Your task to perform on an android device: Go to internet settings Image 0: 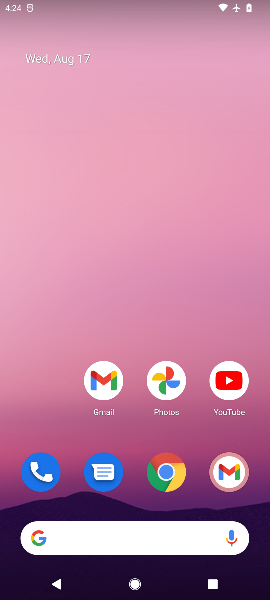
Step 0: drag from (130, 505) to (269, 400)
Your task to perform on an android device: Go to internet settings Image 1: 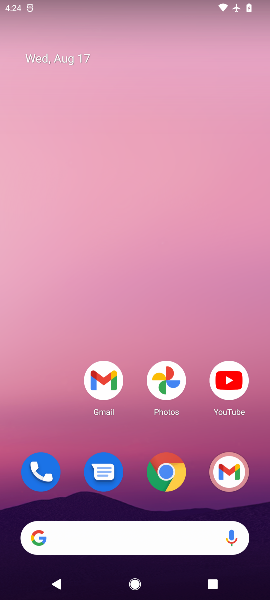
Step 1: click (172, 458)
Your task to perform on an android device: Go to internet settings Image 2: 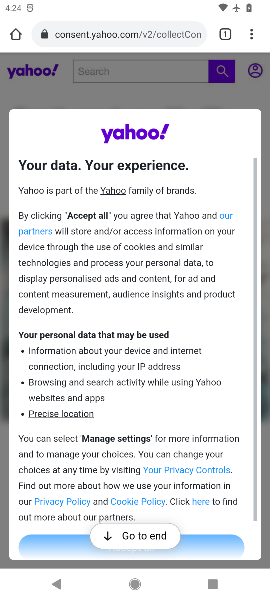
Step 2: press home button
Your task to perform on an android device: Go to internet settings Image 3: 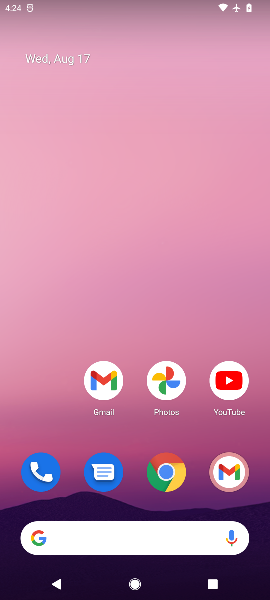
Step 3: drag from (114, 499) to (155, 304)
Your task to perform on an android device: Go to internet settings Image 4: 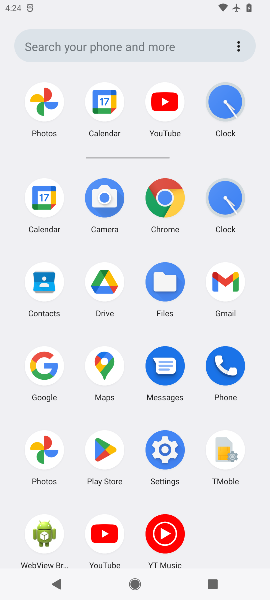
Step 4: click (176, 463)
Your task to perform on an android device: Go to internet settings Image 5: 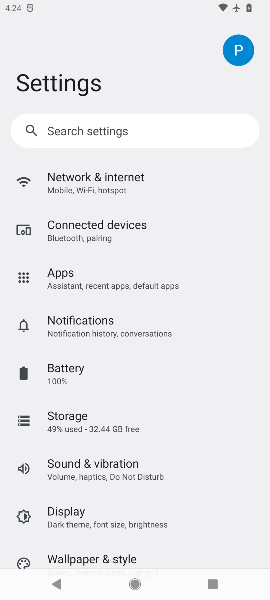
Step 5: click (116, 183)
Your task to perform on an android device: Go to internet settings Image 6: 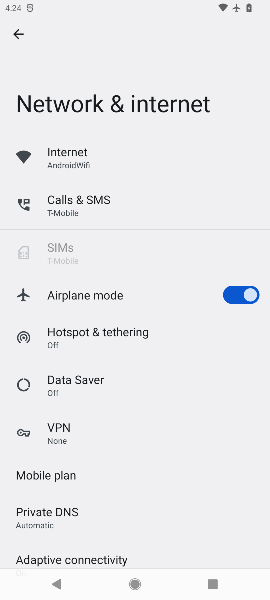
Step 6: click (80, 150)
Your task to perform on an android device: Go to internet settings Image 7: 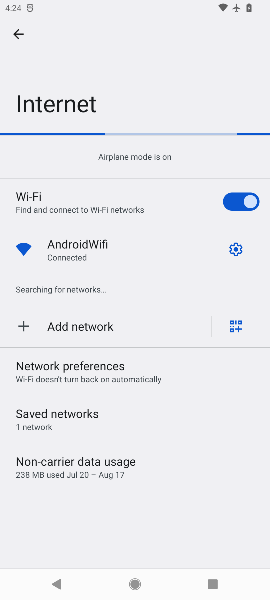
Step 7: task complete